Your task to perform on an android device: Open Google Image 0: 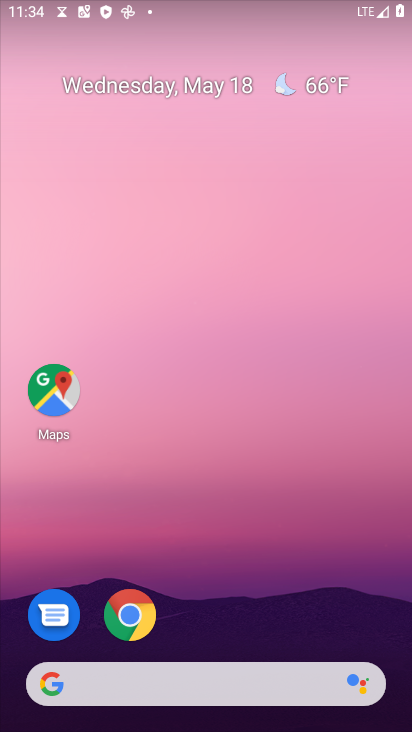
Step 0: drag from (285, 587) to (231, 59)
Your task to perform on an android device: Open Google Image 1: 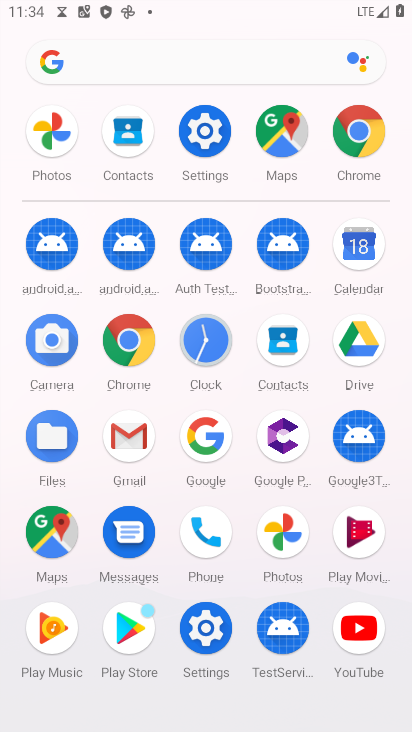
Step 1: drag from (8, 587) to (17, 305)
Your task to perform on an android device: Open Google Image 2: 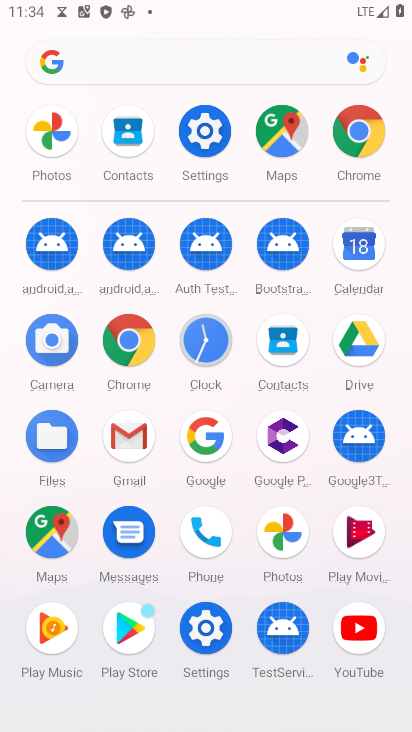
Step 2: click (122, 336)
Your task to perform on an android device: Open Google Image 3: 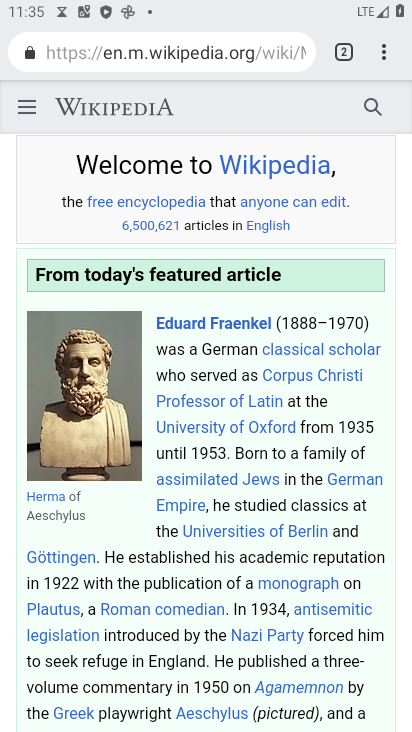
Step 3: click (180, 54)
Your task to perform on an android device: Open Google Image 4: 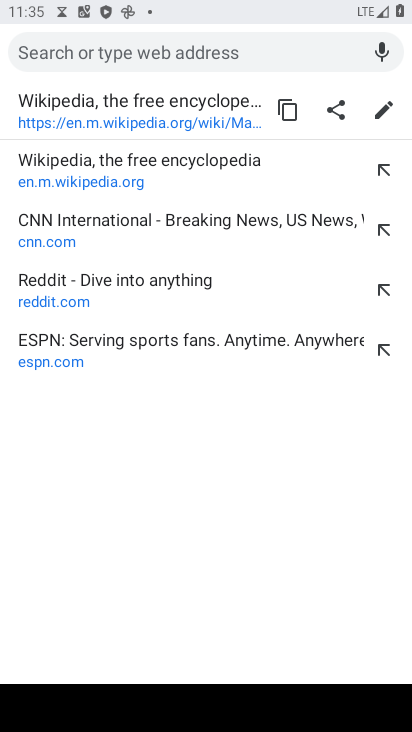
Step 4: type "Google"
Your task to perform on an android device: Open Google Image 5: 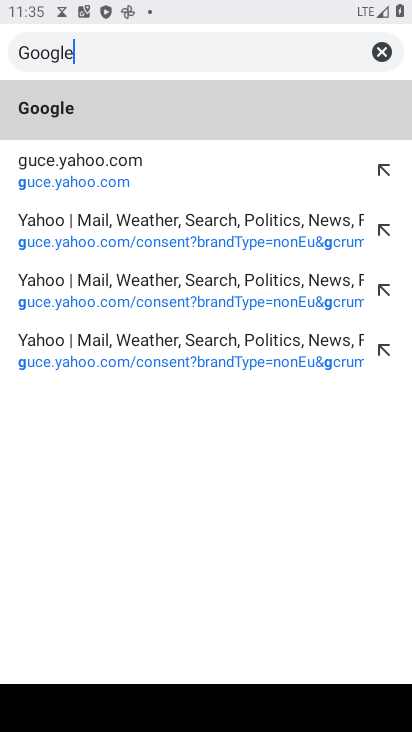
Step 5: type ""
Your task to perform on an android device: Open Google Image 6: 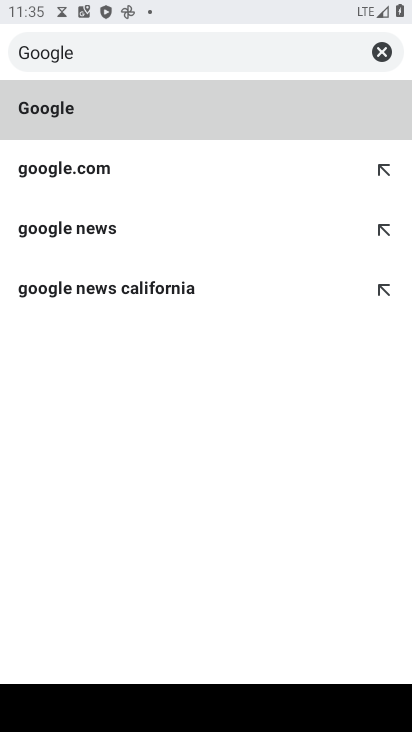
Step 6: click (157, 148)
Your task to perform on an android device: Open Google Image 7: 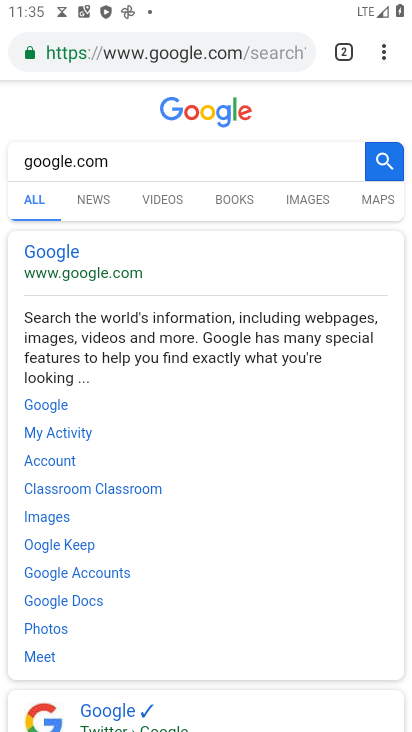
Step 7: click (66, 254)
Your task to perform on an android device: Open Google Image 8: 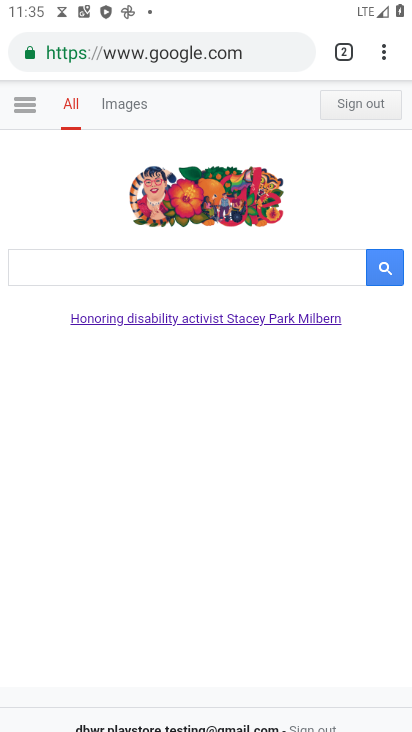
Step 8: task complete